Your task to perform on an android device: turn off airplane mode Image 0: 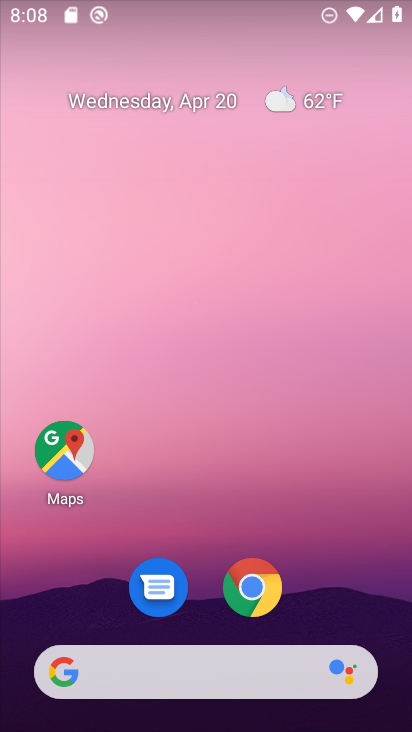
Step 0: drag from (346, 6) to (320, 585)
Your task to perform on an android device: turn off airplane mode Image 1: 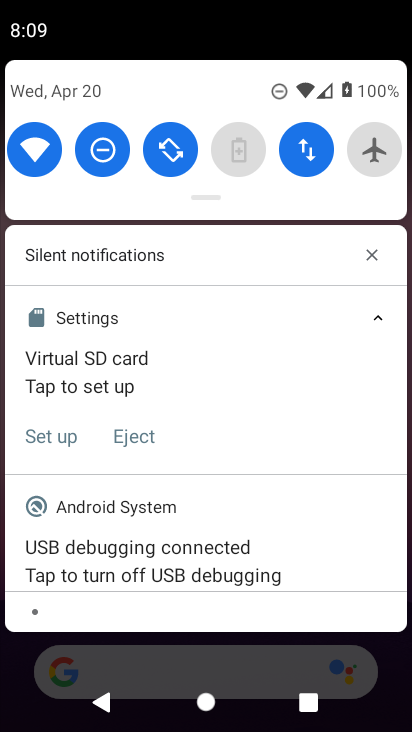
Step 1: task complete